Your task to perform on an android device: Check the weather Image 0: 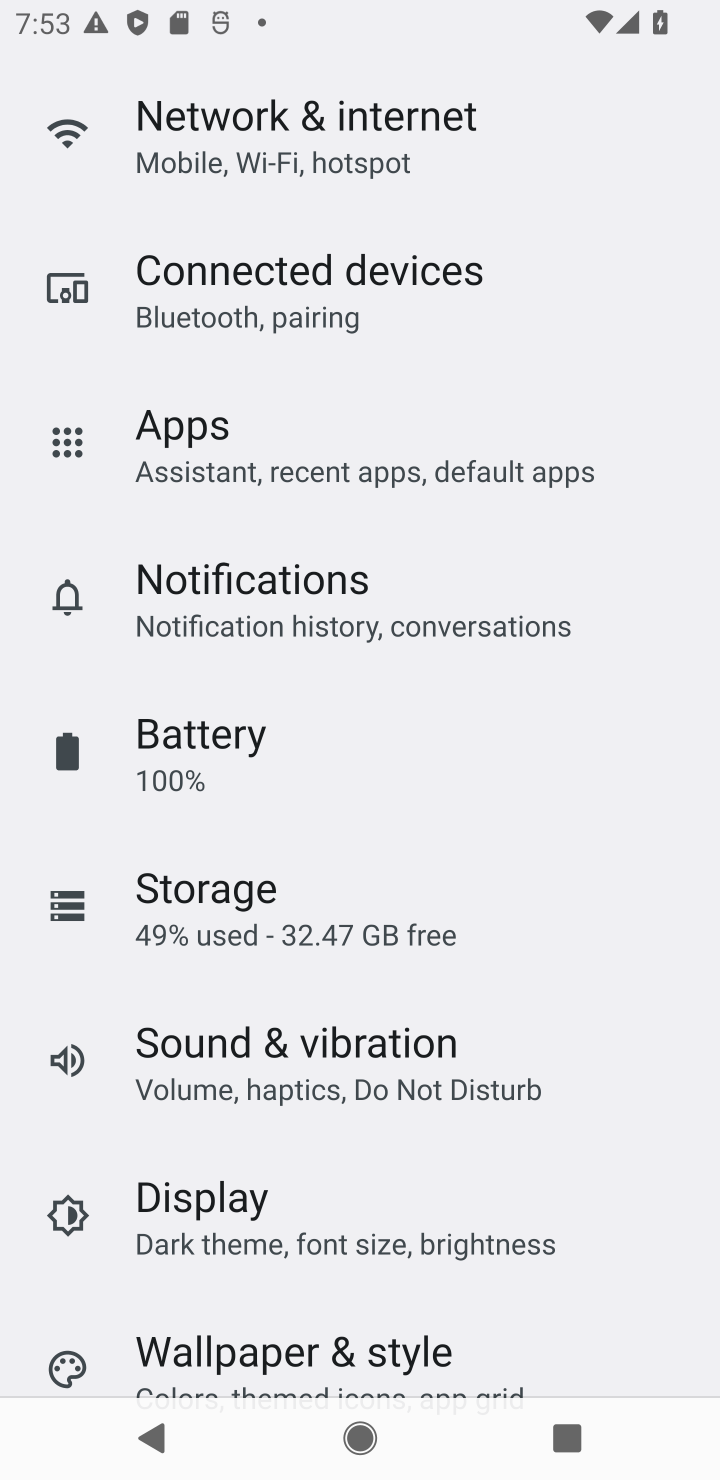
Step 0: press home button
Your task to perform on an android device: Check the weather Image 1: 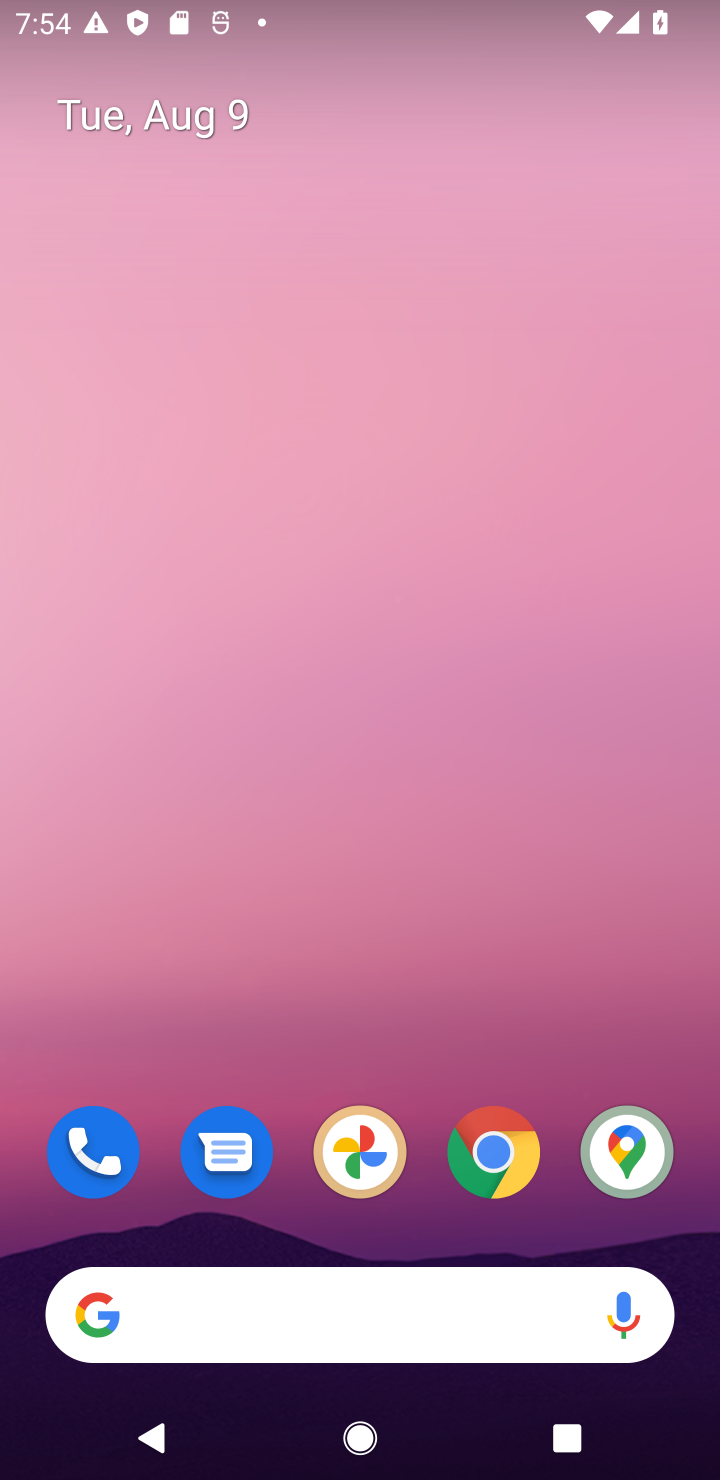
Step 1: click (246, 1277)
Your task to perform on an android device: Check the weather Image 2: 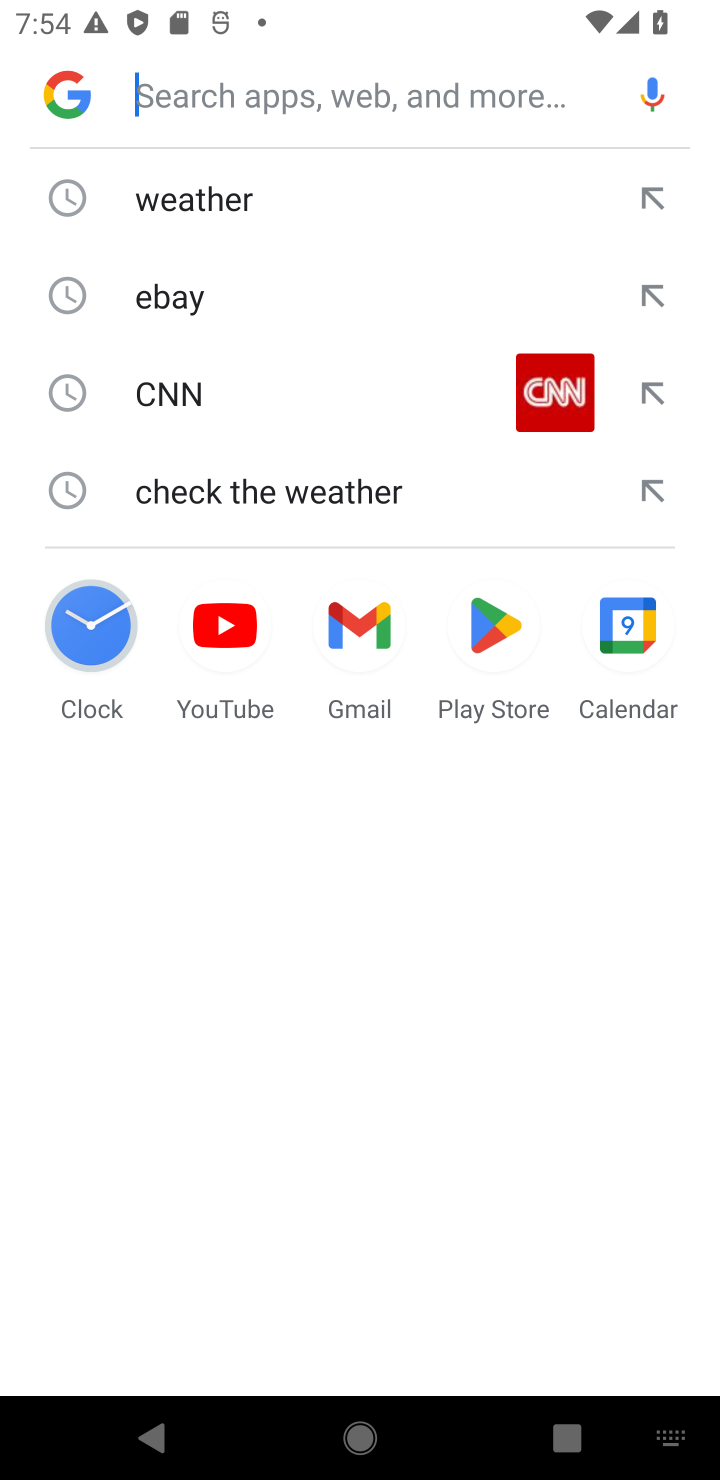
Step 2: click (369, 183)
Your task to perform on an android device: Check the weather Image 3: 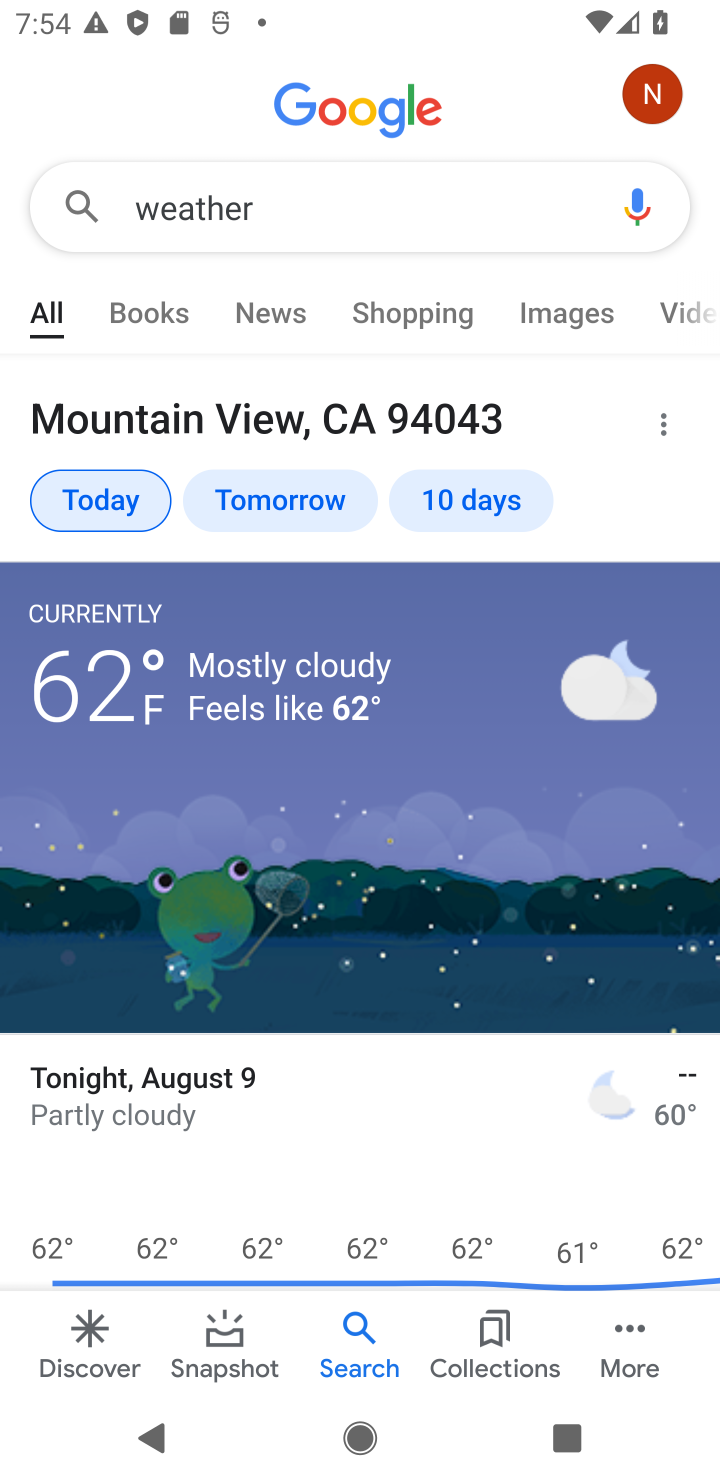
Step 3: task complete